Your task to perform on an android device: empty trash in google photos Image 0: 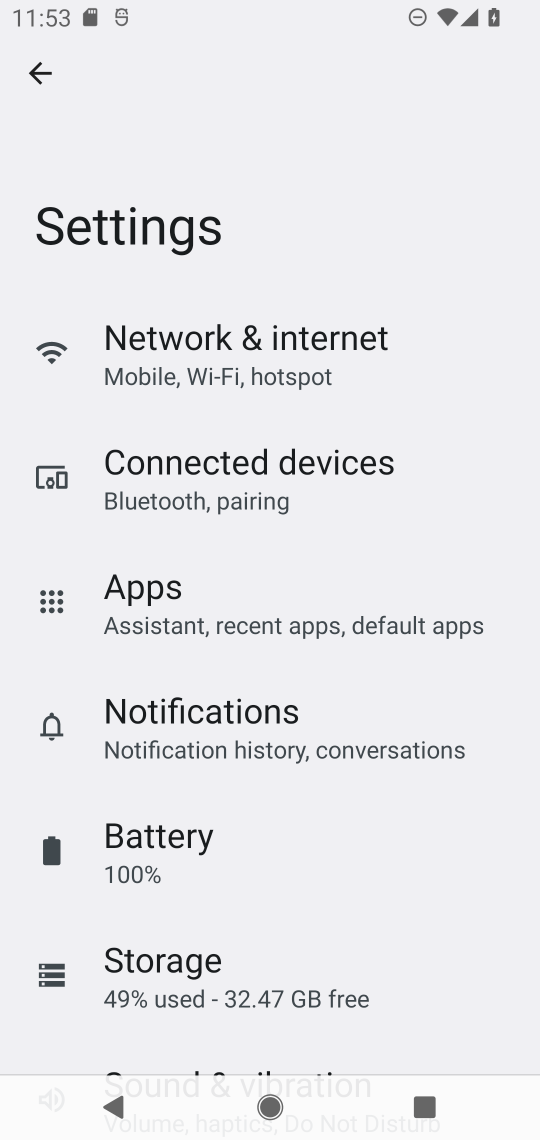
Step 0: press home button
Your task to perform on an android device: empty trash in google photos Image 1: 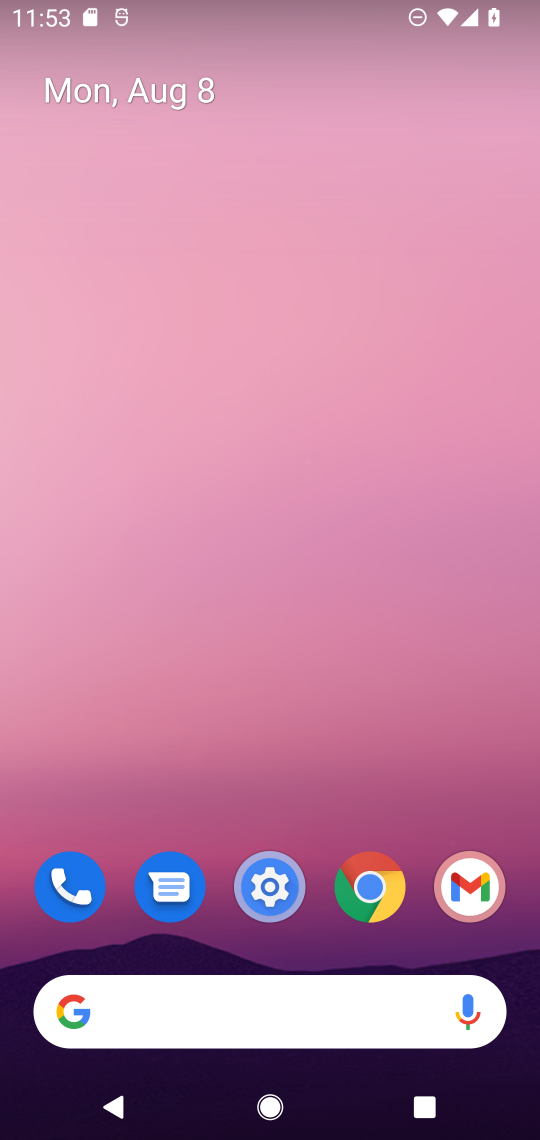
Step 1: drag from (310, 786) to (282, 97)
Your task to perform on an android device: empty trash in google photos Image 2: 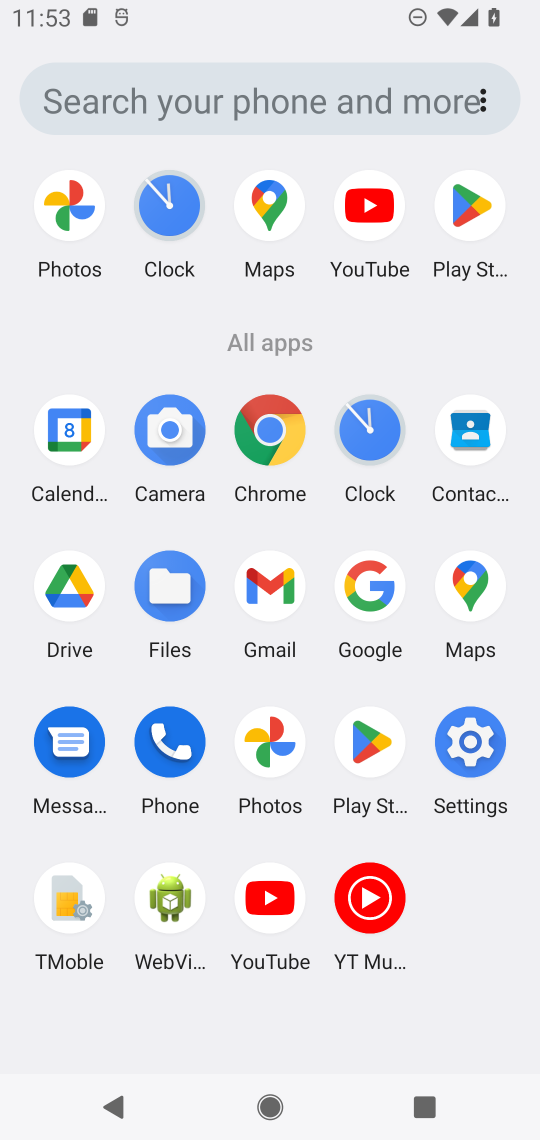
Step 2: click (273, 742)
Your task to perform on an android device: empty trash in google photos Image 3: 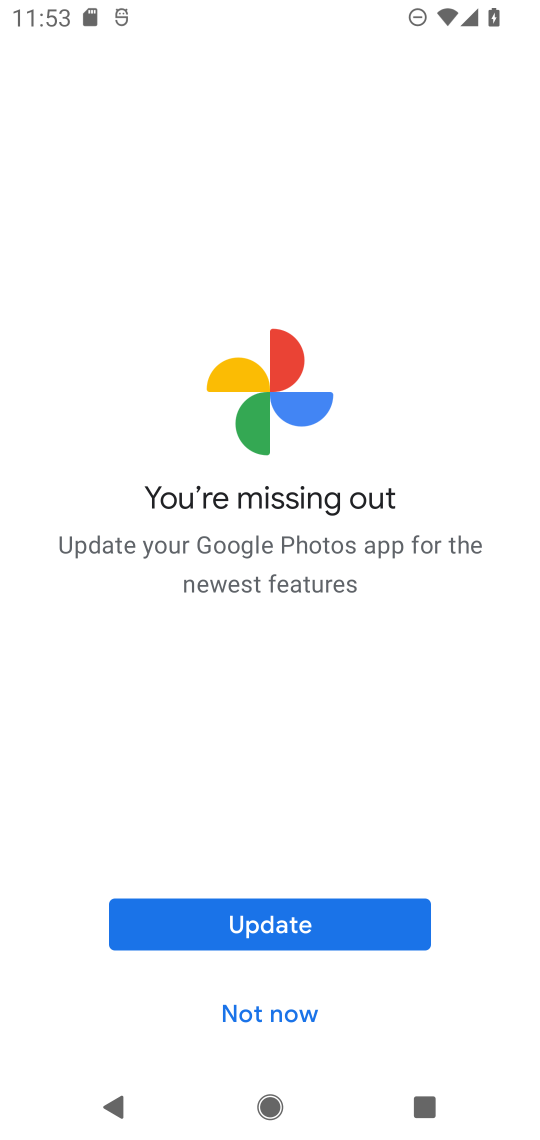
Step 3: click (284, 919)
Your task to perform on an android device: empty trash in google photos Image 4: 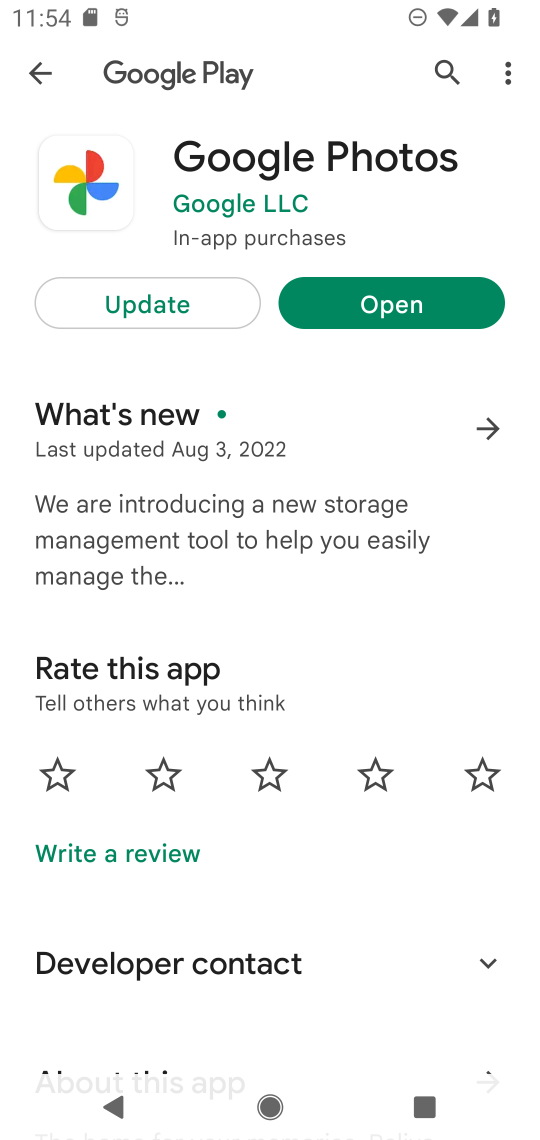
Step 4: click (137, 296)
Your task to perform on an android device: empty trash in google photos Image 5: 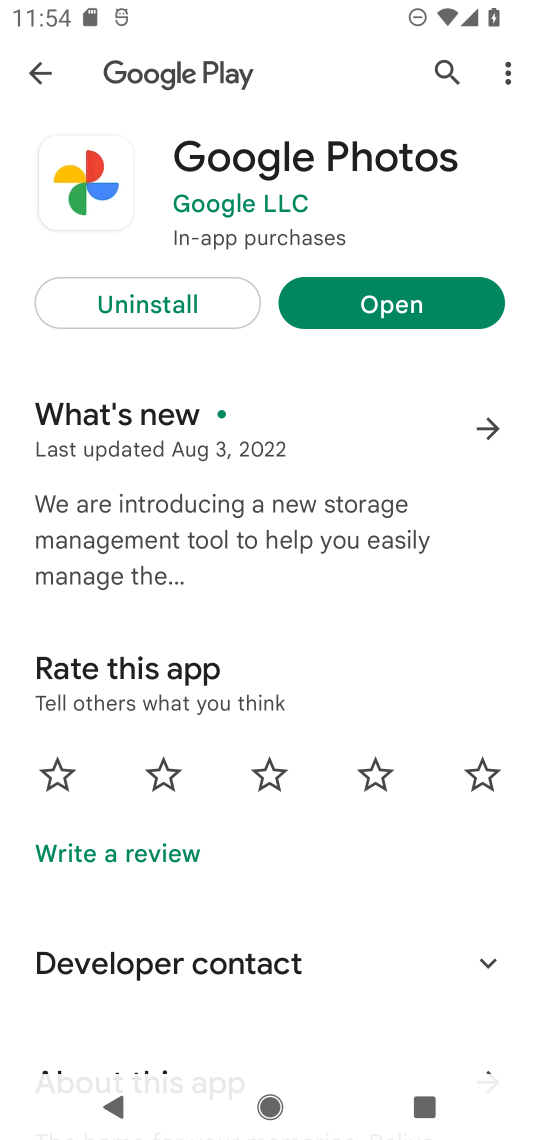
Step 5: click (394, 304)
Your task to perform on an android device: empty trash in google photos Image 6: 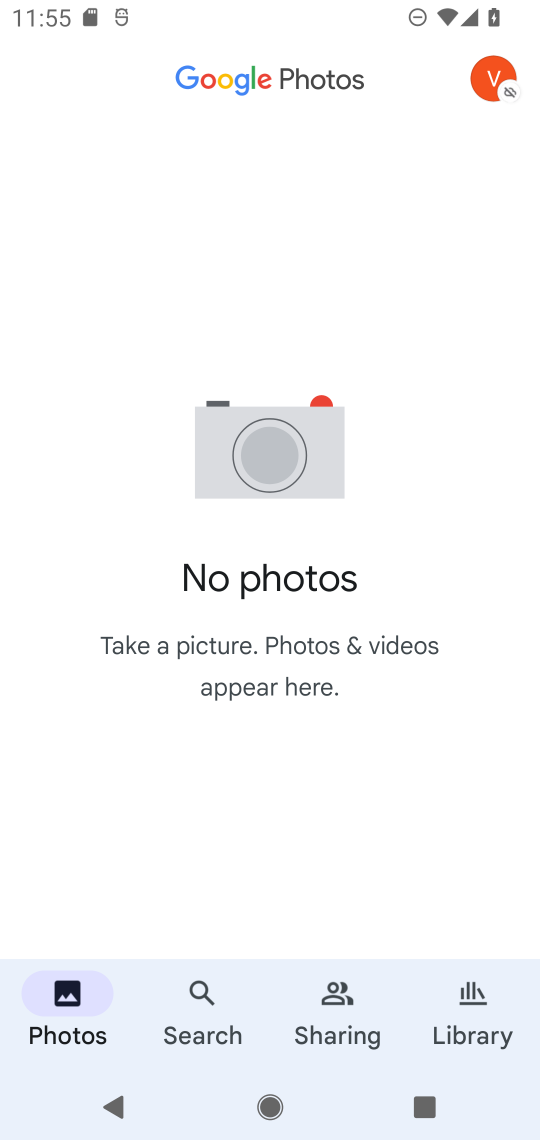
Step 6: click (471, 992)
Your task to perform on an android device: empty trash in google photos Image 7: 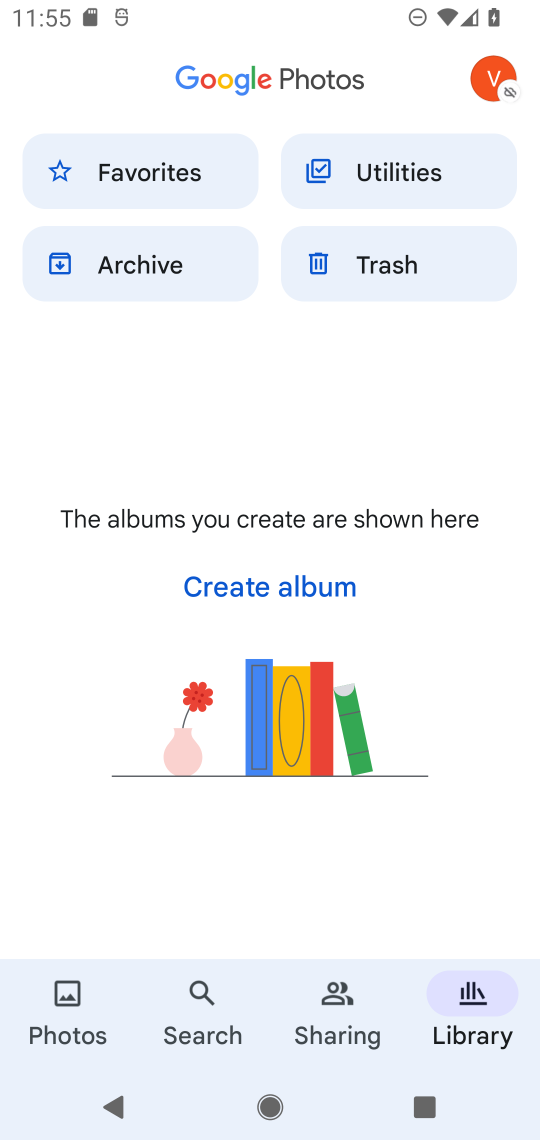
Step 7: click (384, 271)
Your task to perform on an android device: empty trash in google photos Image 8: 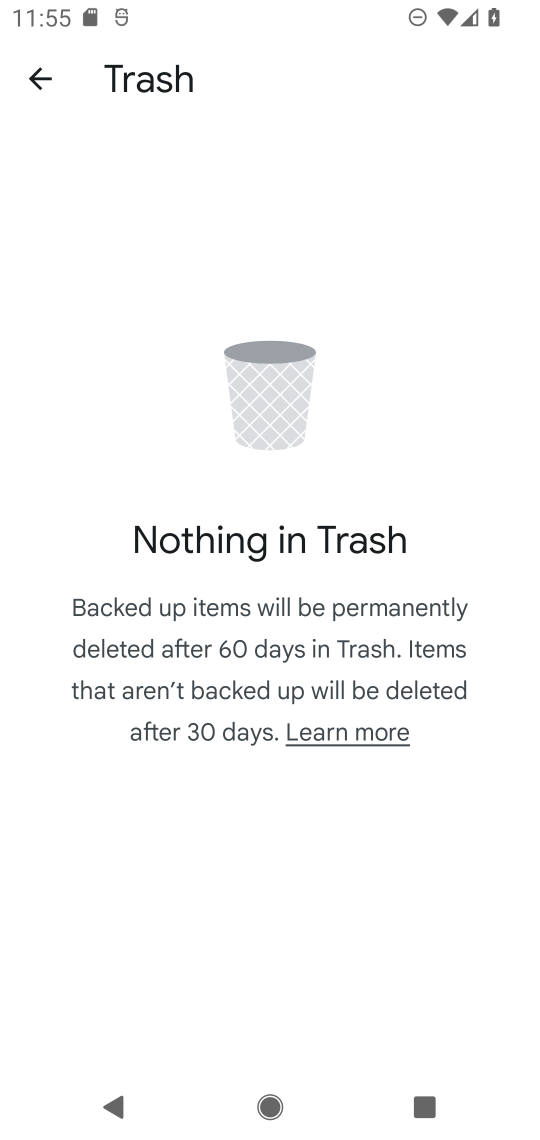
Step 8: task complete